Your task to perform on an android device: turn off wifi Image 0: 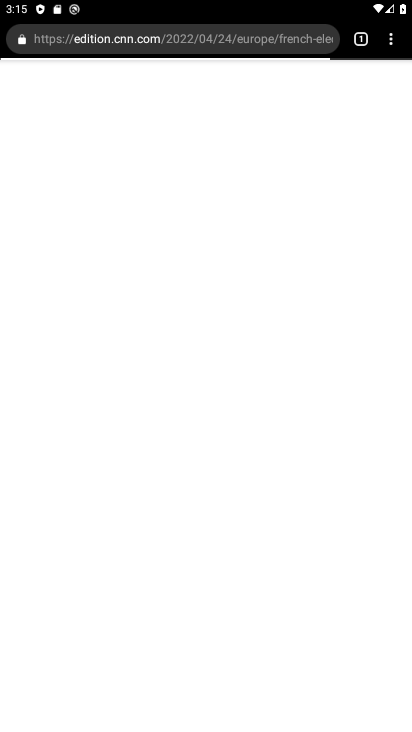
Step 0: press home button
Your task to perform on an android device: turn off wifi Image 1: 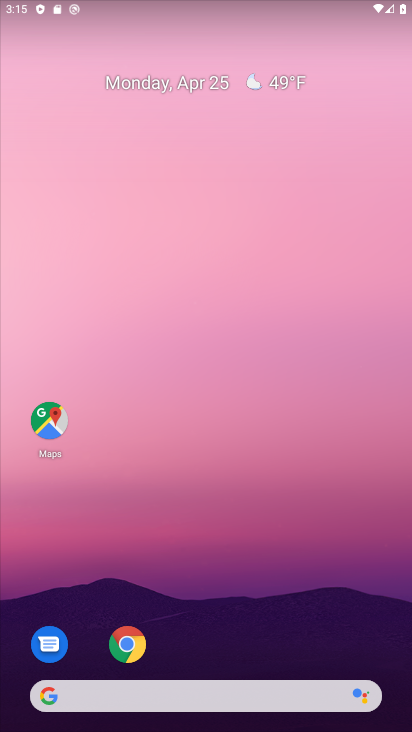
Step 1: drag from (252, 622) to (163, 0)
Your task to perform on an android device: turn off wifi Image 2: 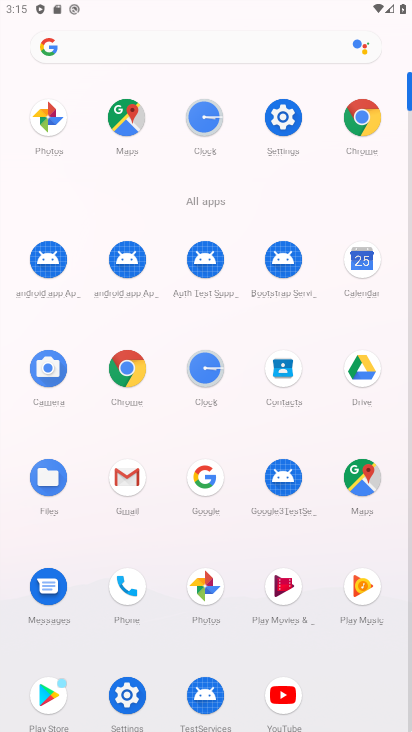
Step 2: click (277, 142)
Your task to perform on an android device: turn off wifi Image 3: 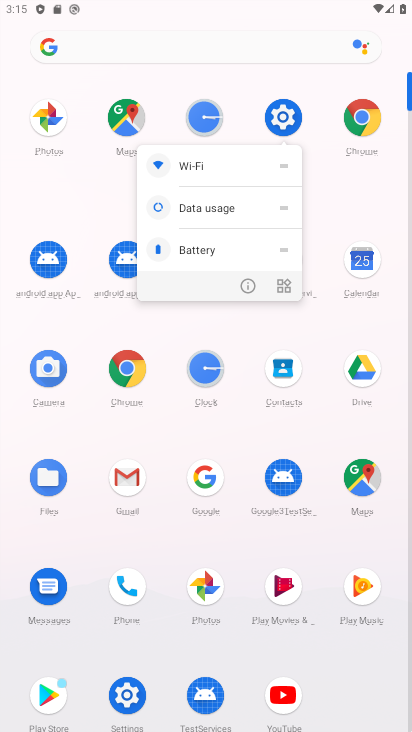
Step 3: click (194, 164)
Your task to perform on an android device: turn off wifi Image 4: 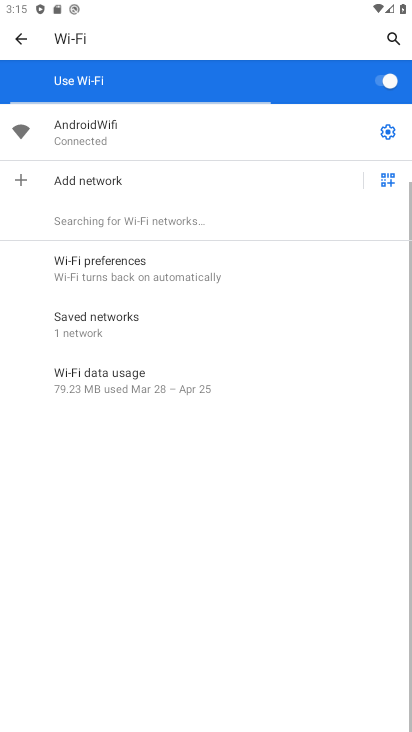
Step 4: click (377, 78)
Your task to perform on an android device: turn off wifi Image 5: 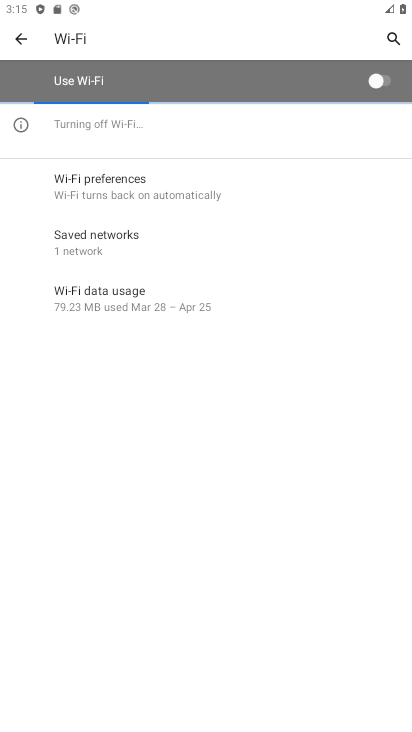
Step 5: task complete